Your task to perform on an android device: turn off location history Image 0: 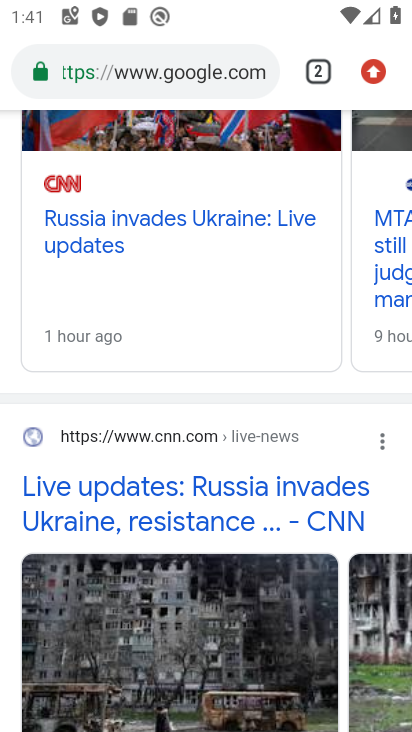
Step 0: press home button
Your task to perform on an android device: turn off location history Image 1: 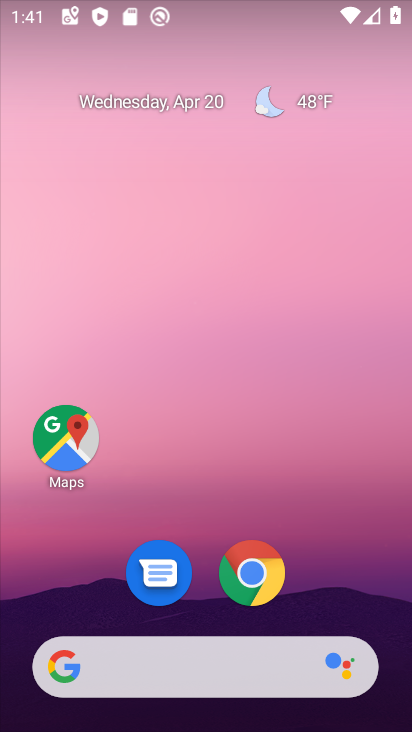
Step 1: drag from (167, 636) to (353, 49)
Your task to perform on an android device: turn off location history Image 2: 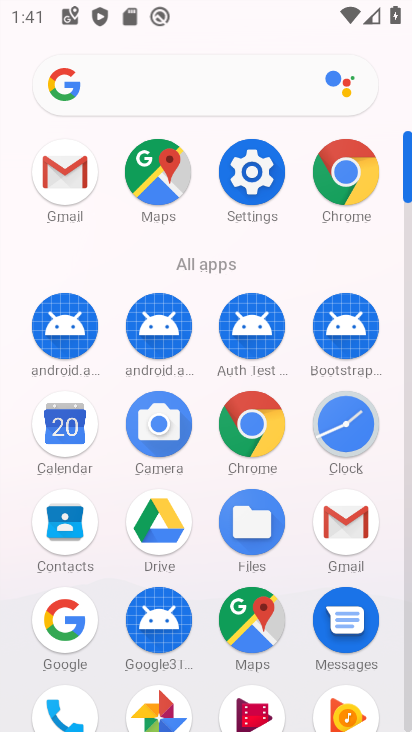
Step 2: click (256, 180)
Your task to perform on an android device: turn off location history Image 3: 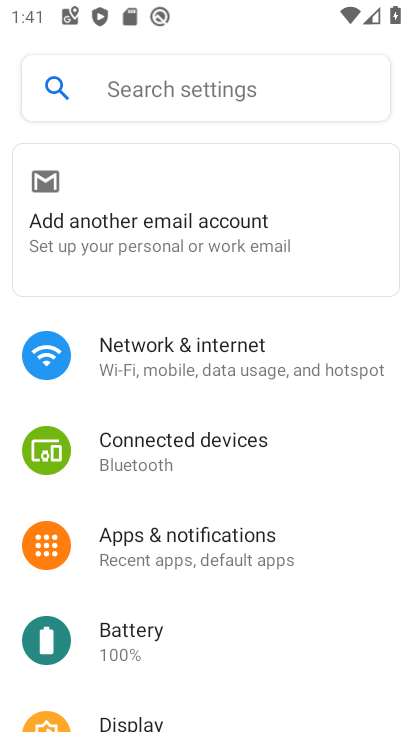
Step 3: drag from (202, 615) to (329, 210)
Your task to perform on an android device: turn off location history Image 4: 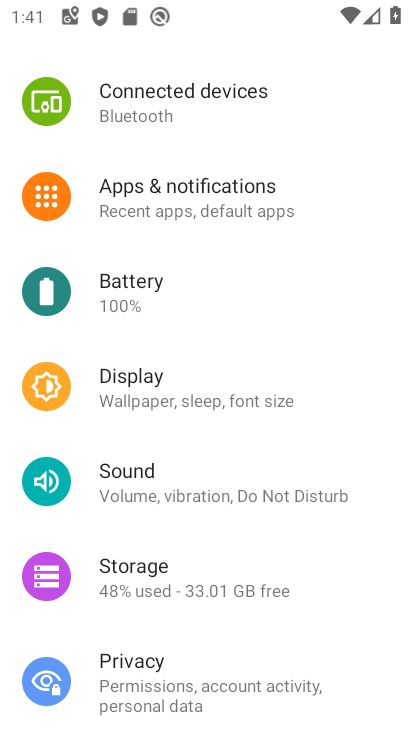
Step 4: drag from (229, 589) to (361, 43)
Your task to perform on an android device: turn off location history Image 5: 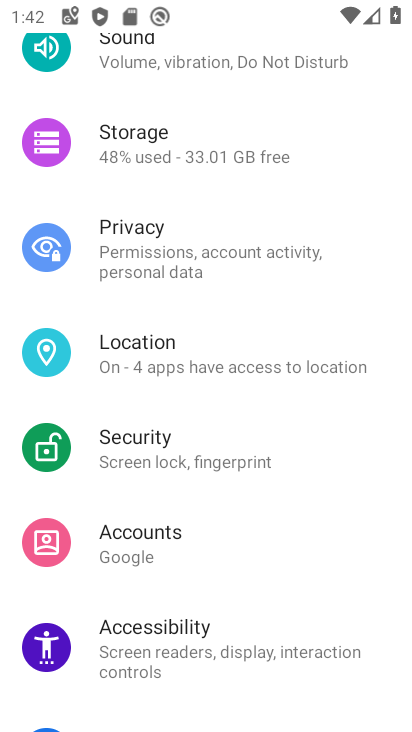
Step 5: click (205, 369)
Your task to perform on an android device: turn off location history Image 6: 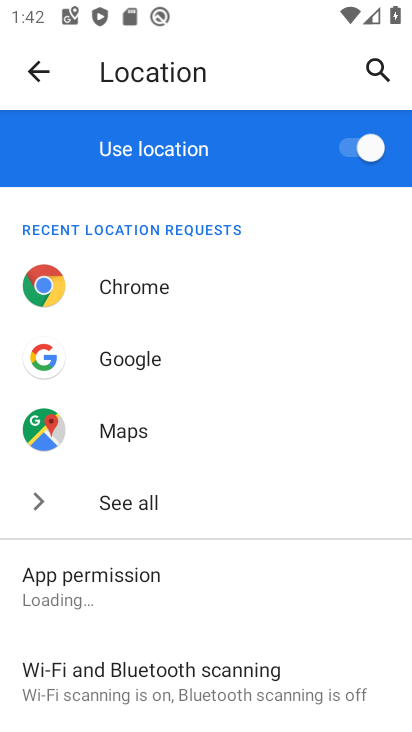
Step 6: drag from (243, 589) to (408, 1)
Your task to perform on an android device: turn off location history Image 7: 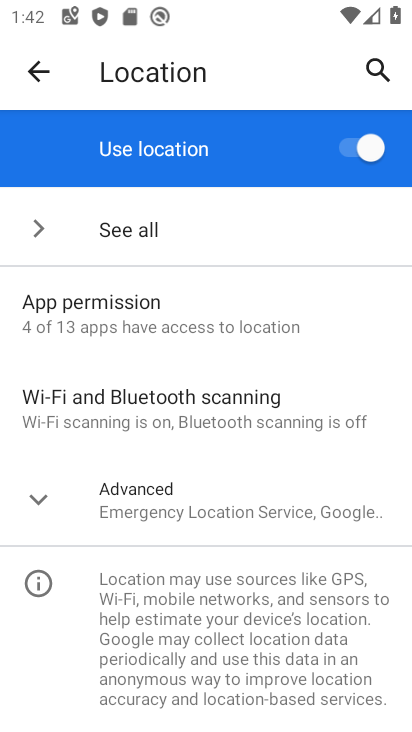
Step 7: click (149, 500)
Your task to perform on an android device: turn off location history Image 8: 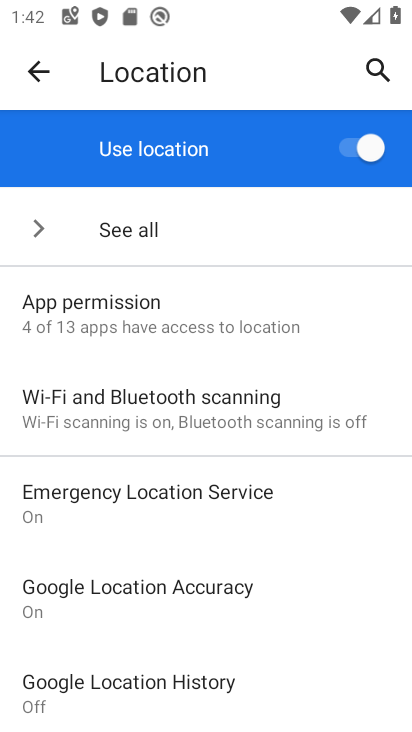
Step 8: drag from (225, 562) to (373, 194)
Your task to perform on an android device: turn off location history Image 9: 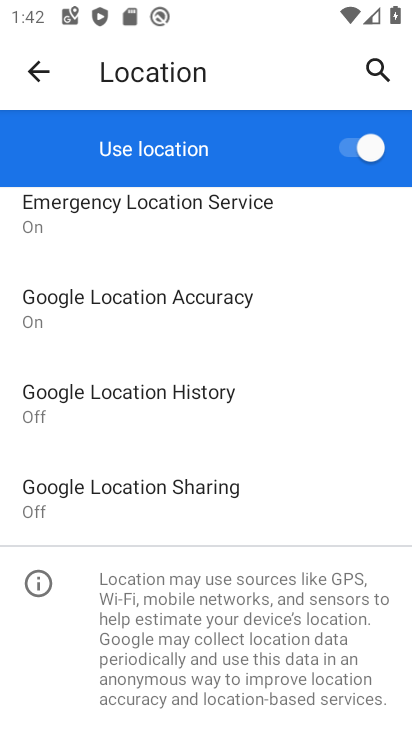
Step 9: click (175, 388)
Your task to perform on an android device: turn off location history Image 10: 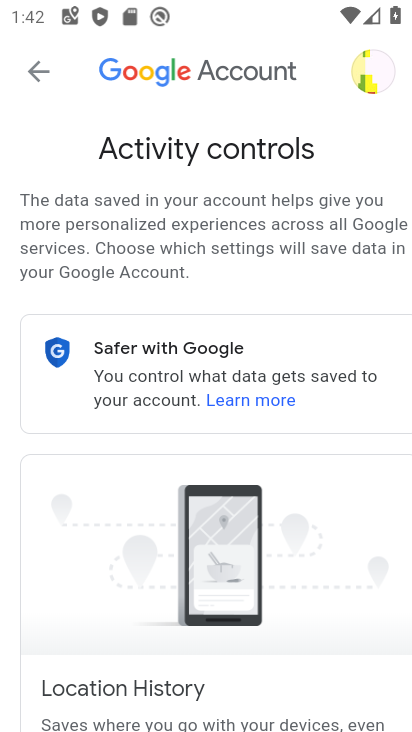
Step 10: task complete